Your task to perform on an android device: open wifi settings Image 0: 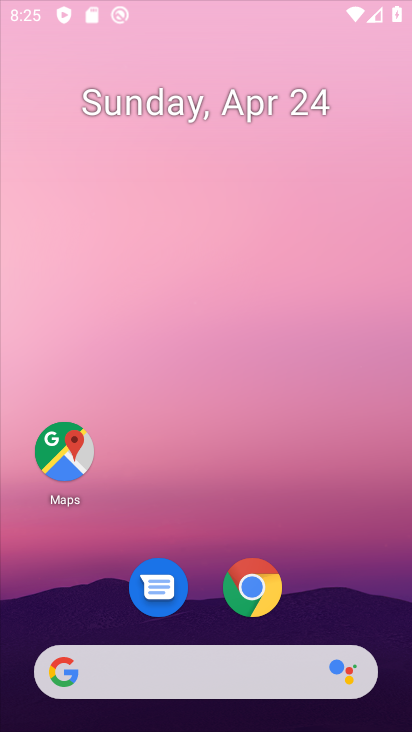
Step 0: click (318, 30)
Your task to perform on an android device: open wifi settings Image 1: 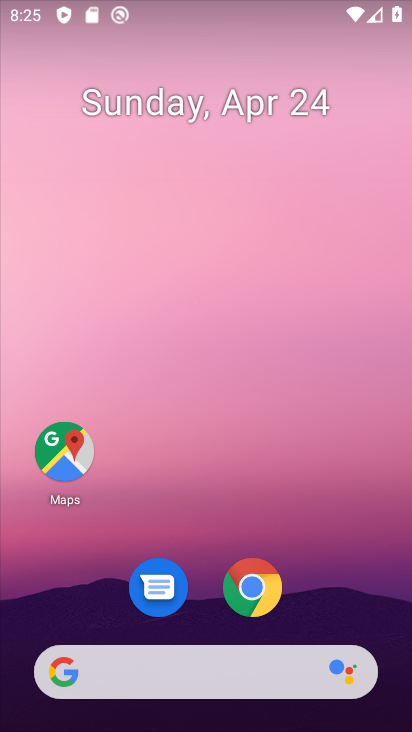
Step 1: drag from (115, 14) to (140, 634)
Your task to perform on an android device: open wifi settings Image 2: 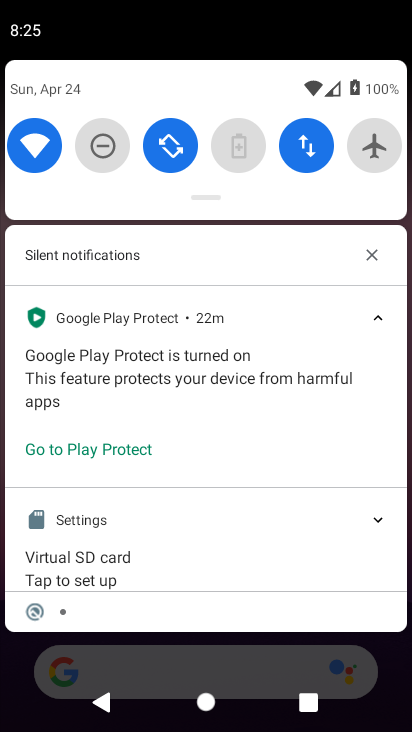
Step 2: click (40, 143)
Your task to perform on an android device: open wifi settings Image 3: 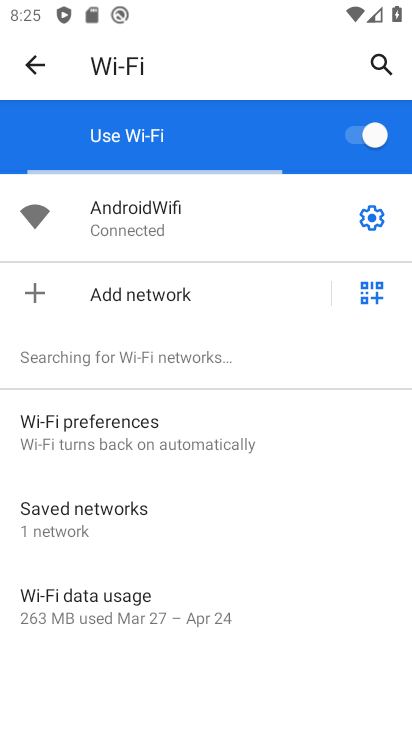
Step 3: task complete